Your task to perform on an android device: choose inbox layout in the gmail app Image 0: 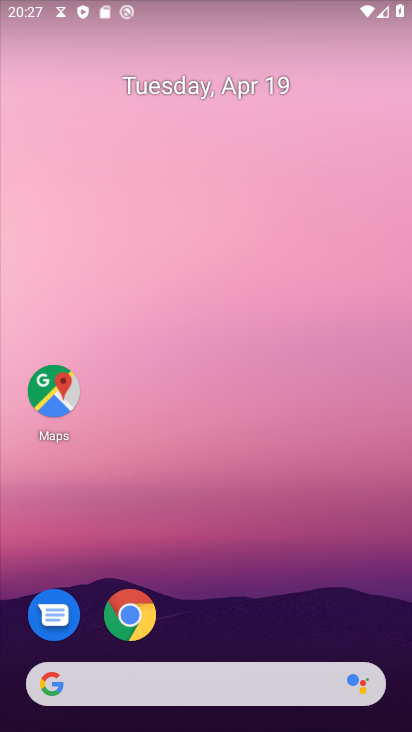
Step 0: drag from (396, 637) to (293, 49)
Your task to perform on an android device: choose inbox layout in the gmail app Image 1: 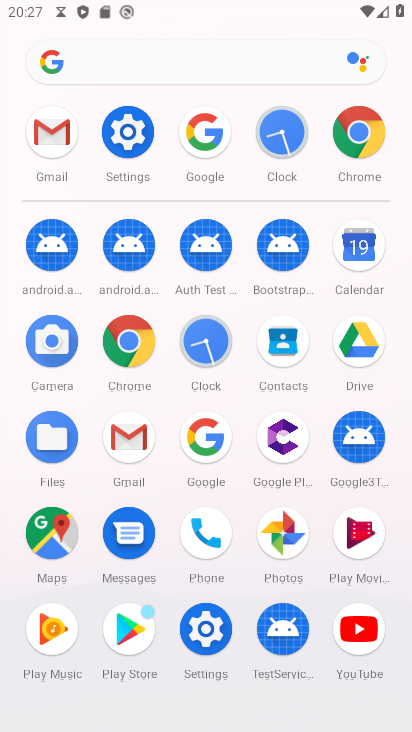
Step 1: click (129, 436)
Your task to perform on an android device: choose inbox layout in the gmail app Image 2: 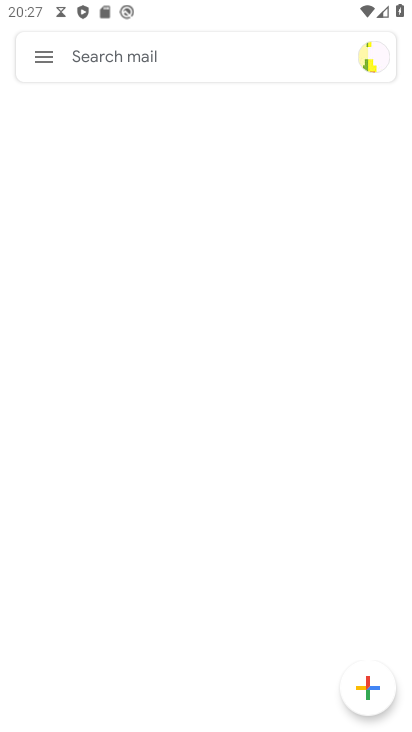
Step 2: click (37, 59)
Your task to perform on an android device: choose inbox layout in the gmail app Image 3: 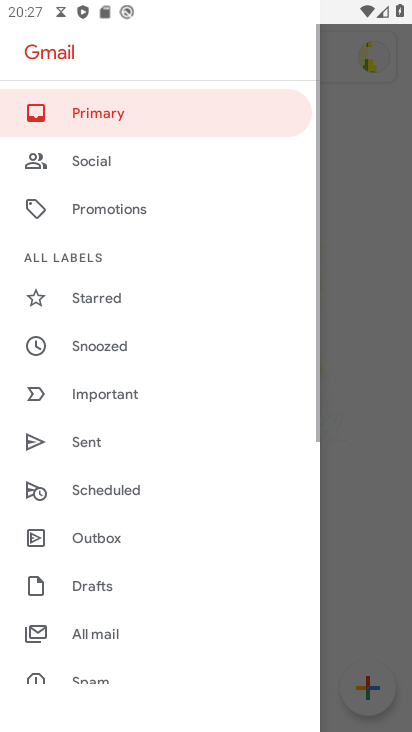
Step 3: click (140, 150)
Your task to perform on an android device: choose inbox layout in the gmail app Image 4: 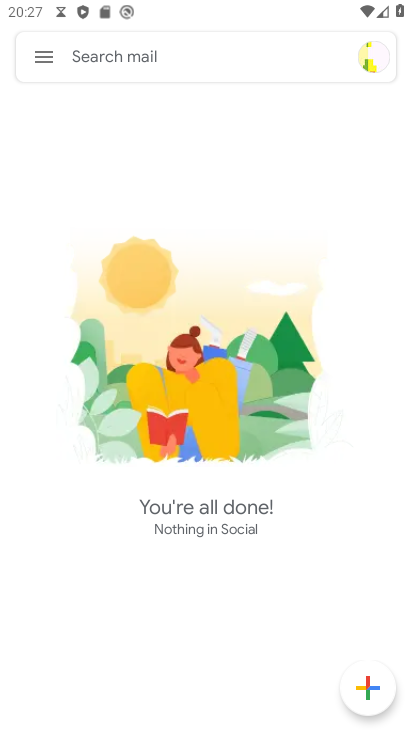
Step 4: click (53, 57)
Your task to perform on an android device: choose inbox layout in the gmail app Image 5: 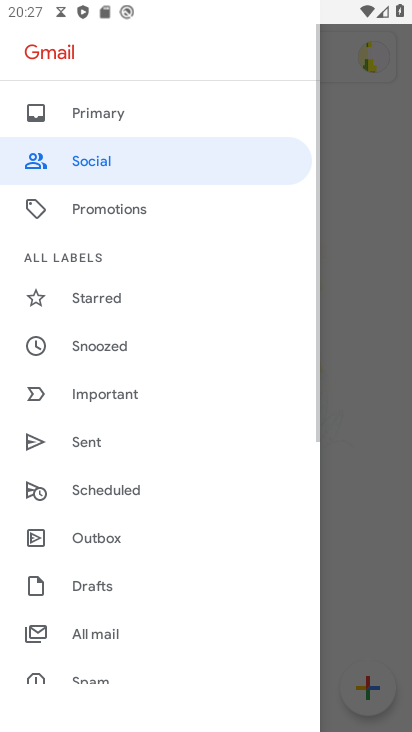
Step 5: click (148, 197)
Your task to perform on an android device: choose inbox layout in the gmail app Image 6: 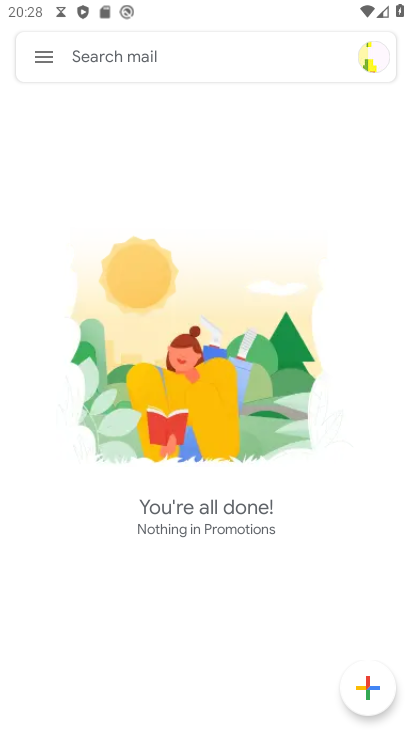
Step 6: click (44, 56)
Your task to perform on an android device: choose inbox layout in the gmail app Image 7: 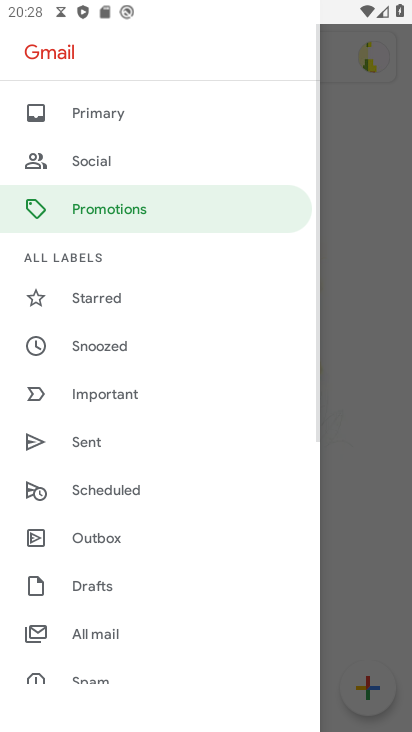
Step 7: drag from (118, 552) to (175, 194)
Your task to perform on an android device: choose inbox layout in the gmail app Image 8: 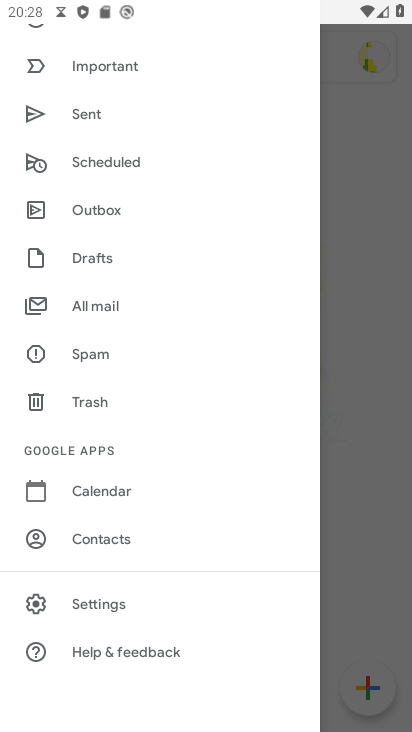
Step 8: drag from (154, 569) to (185, 267)
Your task to perform on an android device: choose inbox layout in the gmail app Image 9: 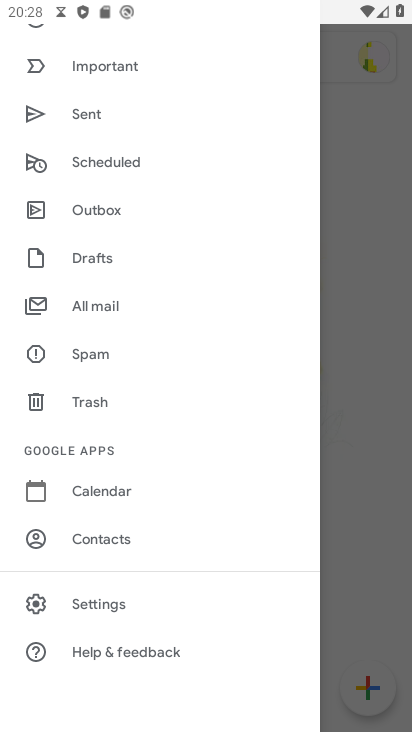
Step 9: click (106, 597)
Your task to perform on an android device: choose inbox layout in the gmail app Image 10: 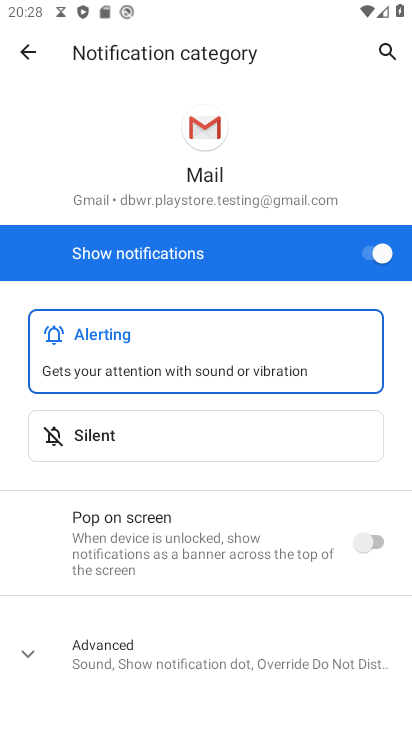
Step 10: drag from (169, 599) to (173, 245)
Your task to perform on an android device: choose inbox layout in the gmail app Image 11: 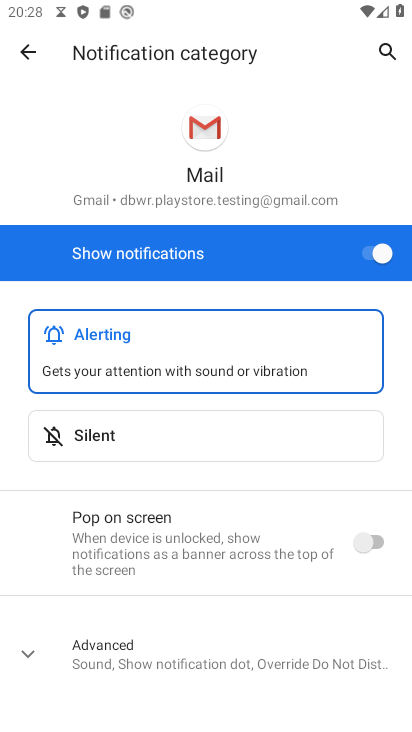
Step 11: click (112, 642)
Your task to perform on an android device: choose inbox layout in the gmail app Image 12: 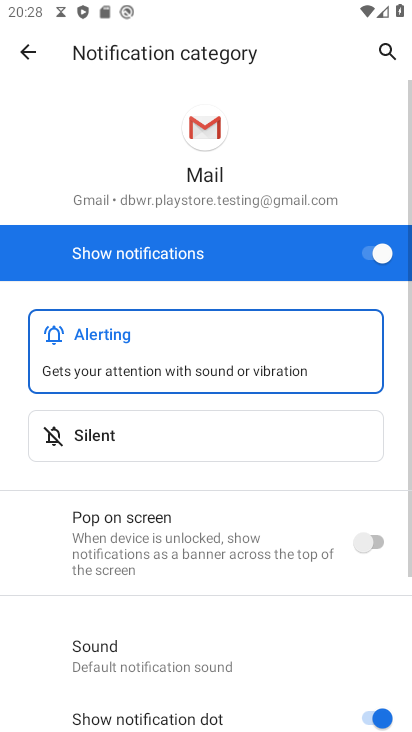
Step 12: click (34, 53)
Your task to perform on an android device: choose inbox layout in the gmail app Image 13: 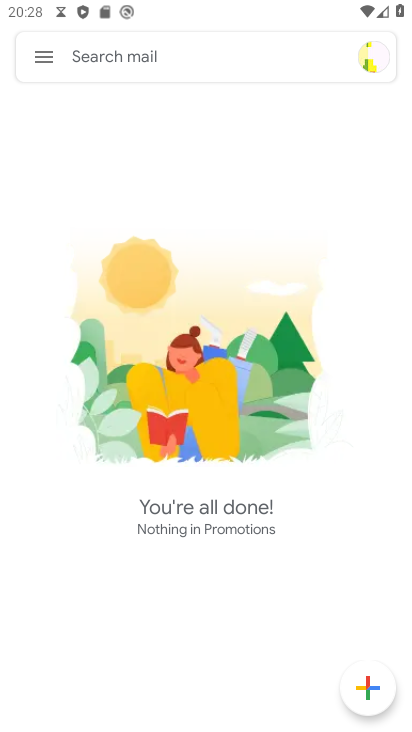
Step 13: click (34, 53)
Your task to perform on an android device: choose inbox layout in the gmail app Image 14: 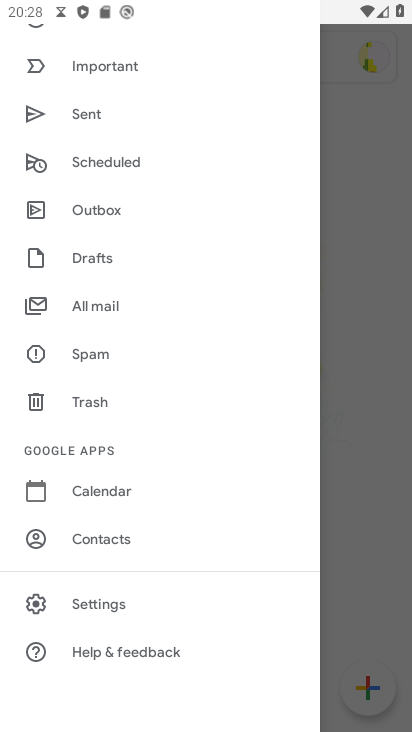
Step 14: click (115, 604)
Your task to perform on an android device: choose inbox layout in the gmail app Image 15: 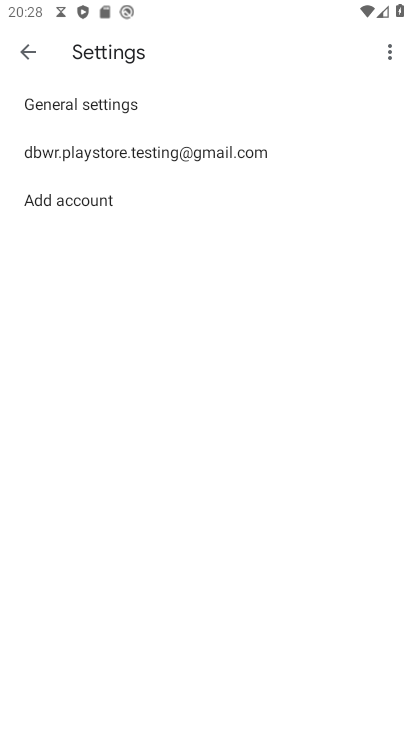
Step 15: click (114, 158)
Your task to perform on an android device: choose inbox layout in the gmail app Image 16: 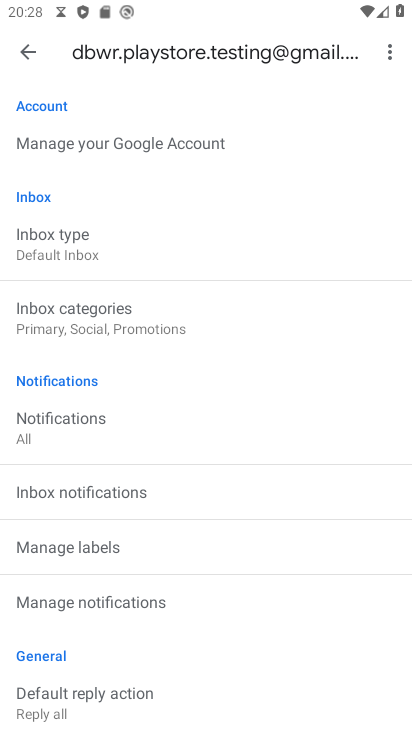
Step 16: click (91, 228)
Your task to perform on an android device: choose inbox layout in the gmail app Image 17: 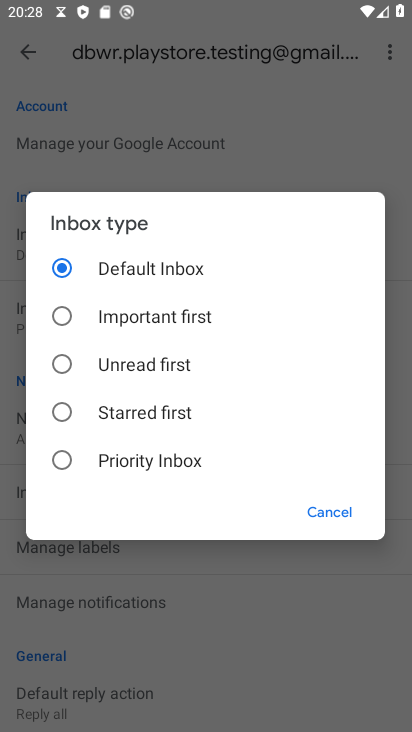
Step 17: click (164, 324)
Your task to perform on an android device: choose inbox layout in the gmail app Image 18: 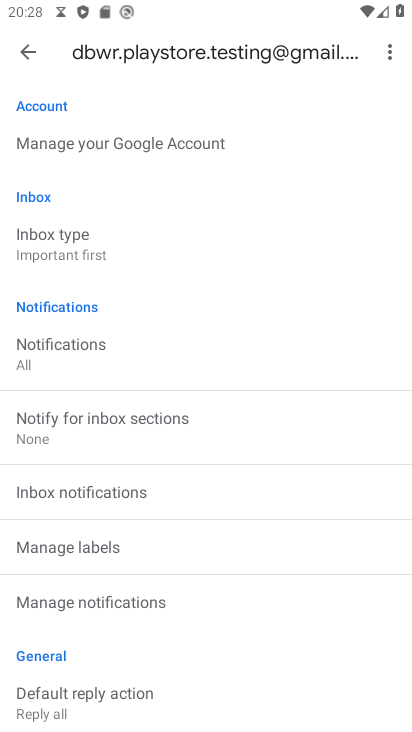
Step 18: task complete